Your task to perform on an android device: Add dell alienware to the cart on target Image 0: 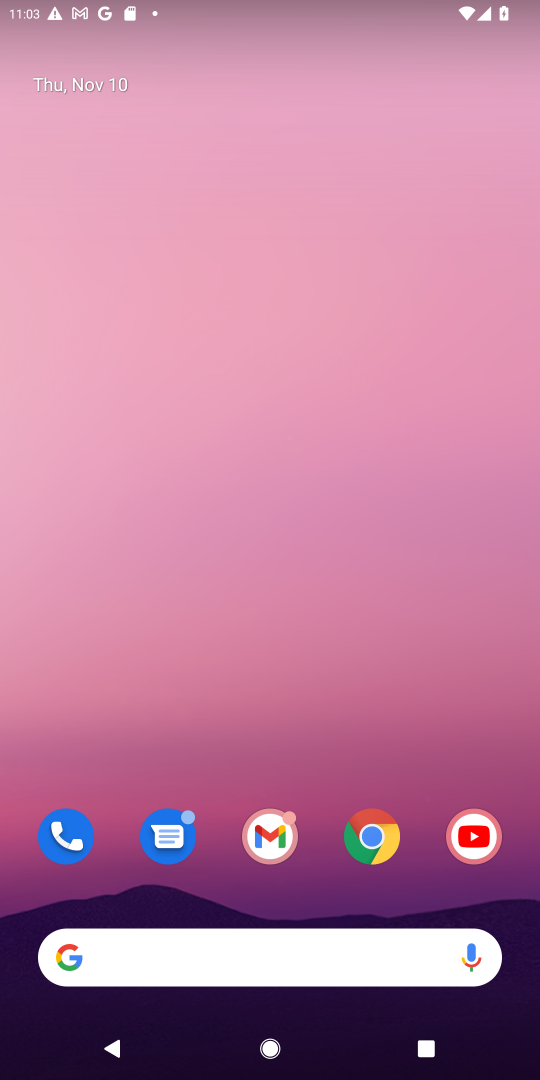
Step 0: click (254, 953)
Your task to perform on an android device: Add dell alienware to the cart on target Image 1: 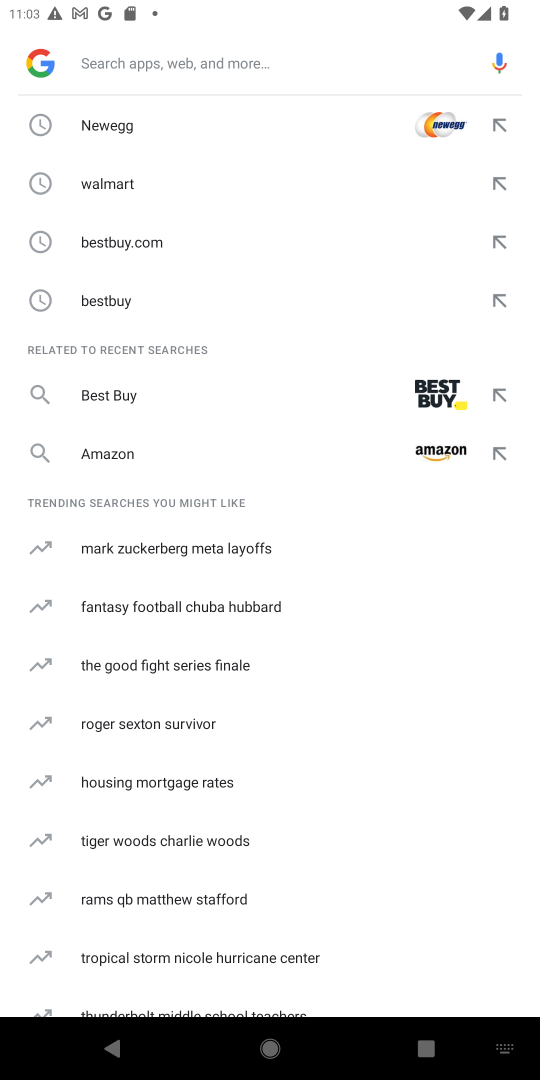
Step 1: type "target"
Your task to perform on an android device: Add dell alienware to the cart on target Image 2: 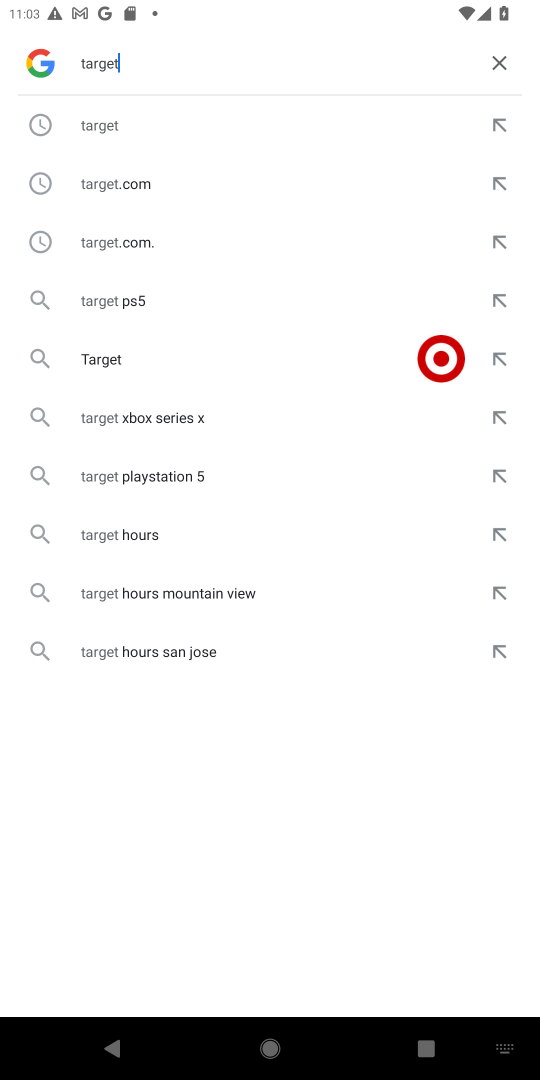
Step 2: click (103, 122)
Your task to perform on an android device: Add dell alienware to the cart on target Image 3: 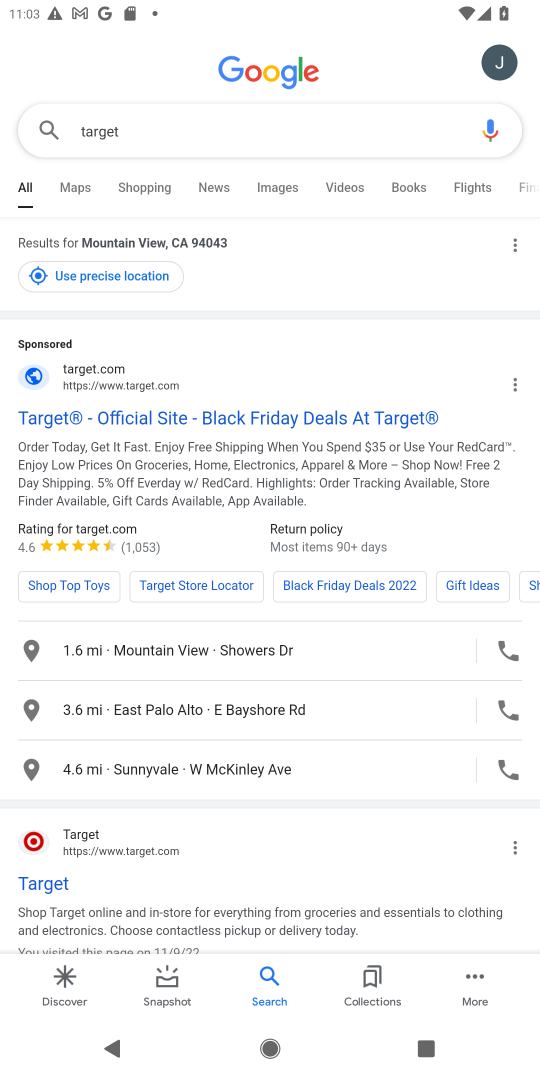
Step 3: click (81, 373)
Your task to perform on an android device: Add dell alienware to the cart on target Image 4: 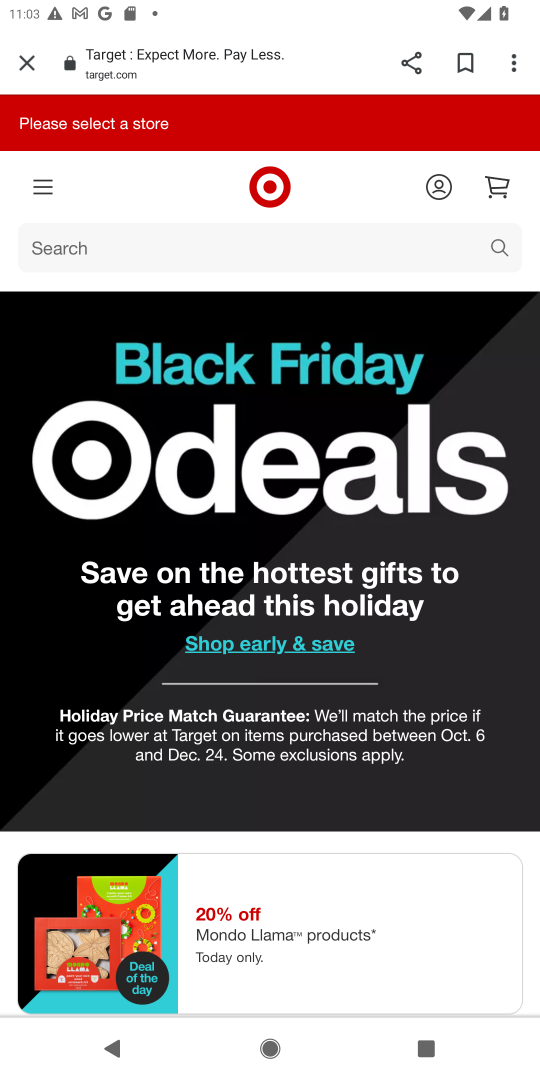
Step 4: click (178, 243)
Your task to perform on an android device: Add dell alienware to the cart on target Image 5: 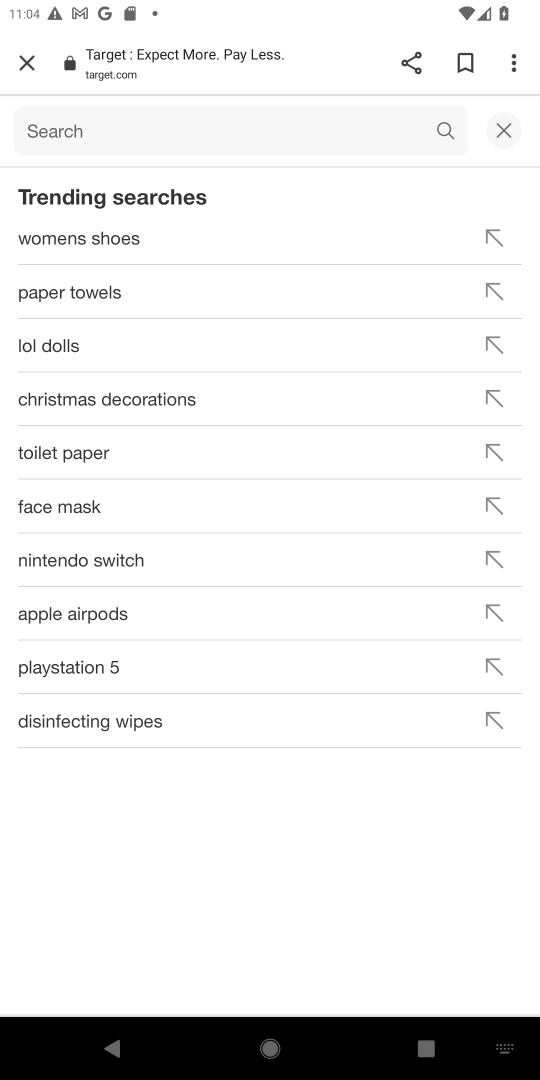
Step 5: type "dell alienware "
Your task to perform on an android device: Add dell alienware to the cart on target Image 6: 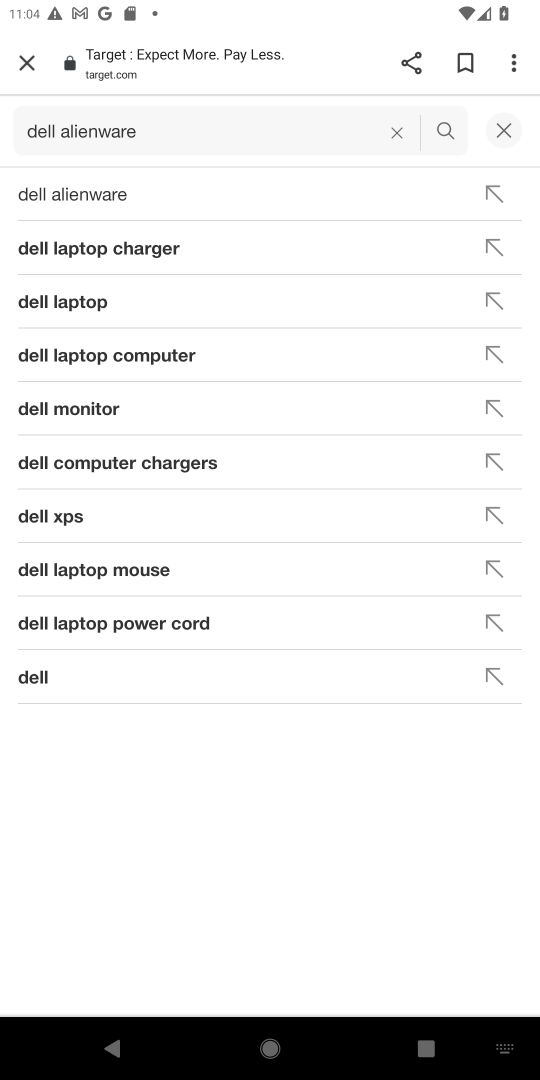
Step 6: click (93, 186)
Your task to perform on an android device: Add dell alienware to the cart on target Image 7: 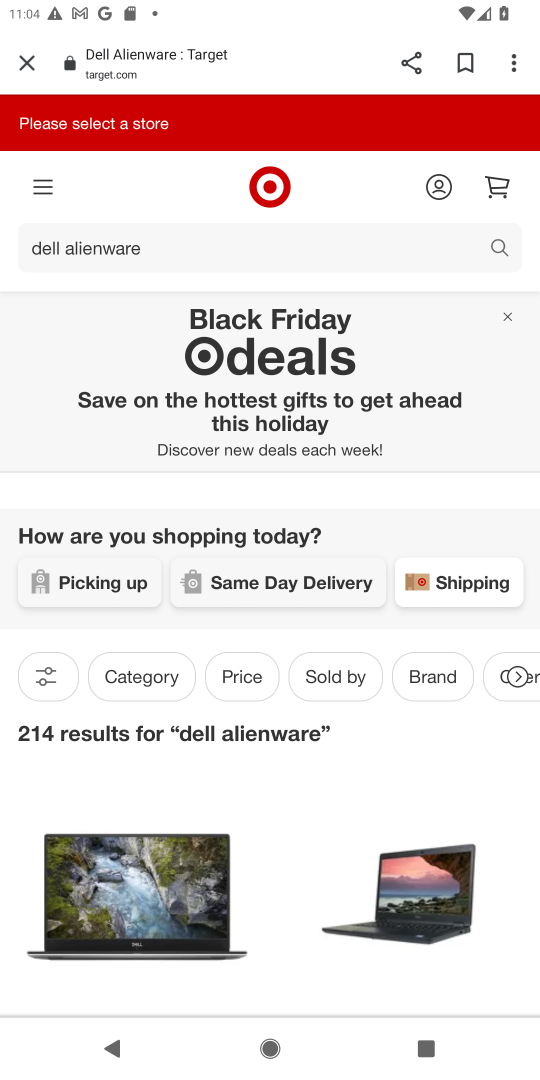
Step 7: drag from (257, 867) to (246, 732)
Your task to perform on an android device: Add dell alienware to the cart on target Image 8: 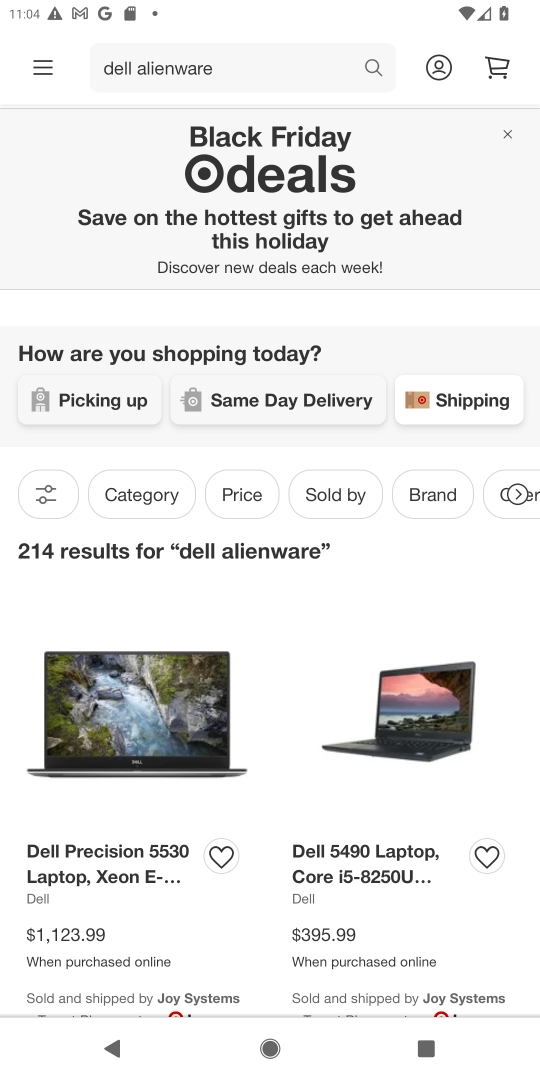
Step 8: drag from (178, 778) to (177, 592)
Your task to perform on an android device: Add dell alienware to the cart on target Image 9: 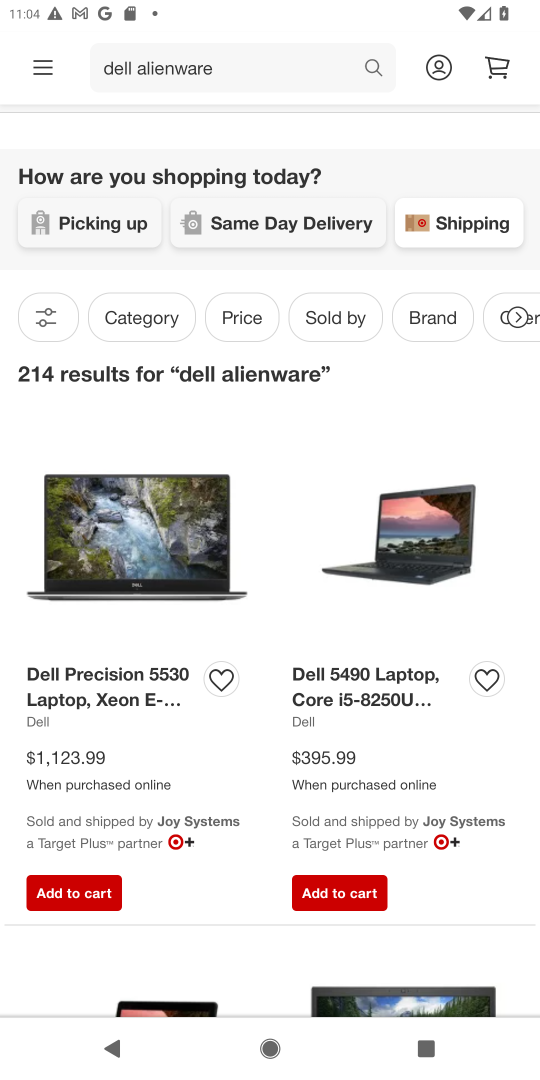
Step 9: click (61, 902)
Your task to perform on an android device: Add dell alienware to the cart on target Image 10: 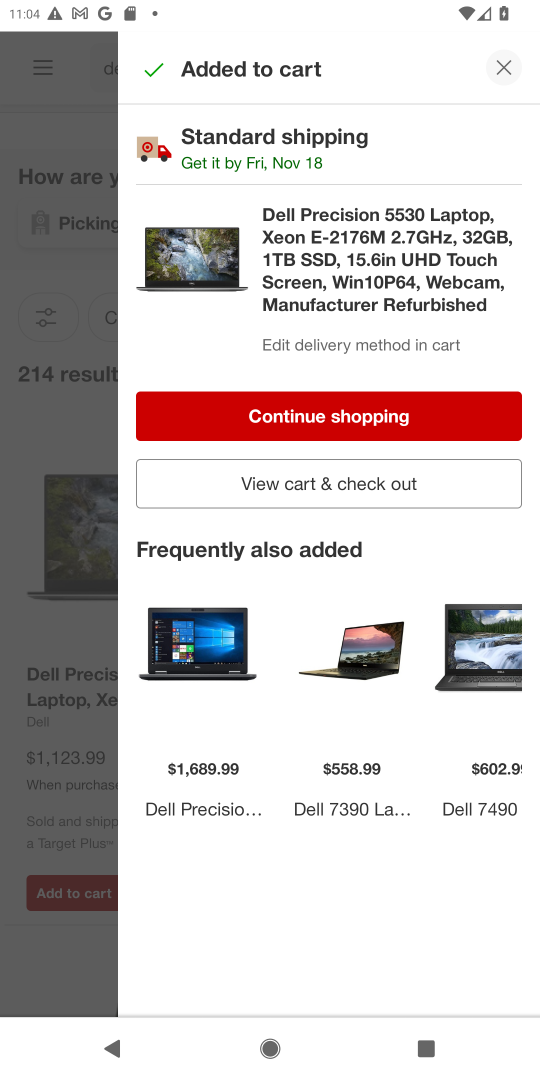
Step 10: click (500, 62)
Your task to perform on an android device: Add dell alienware to the cart on target Image 11: 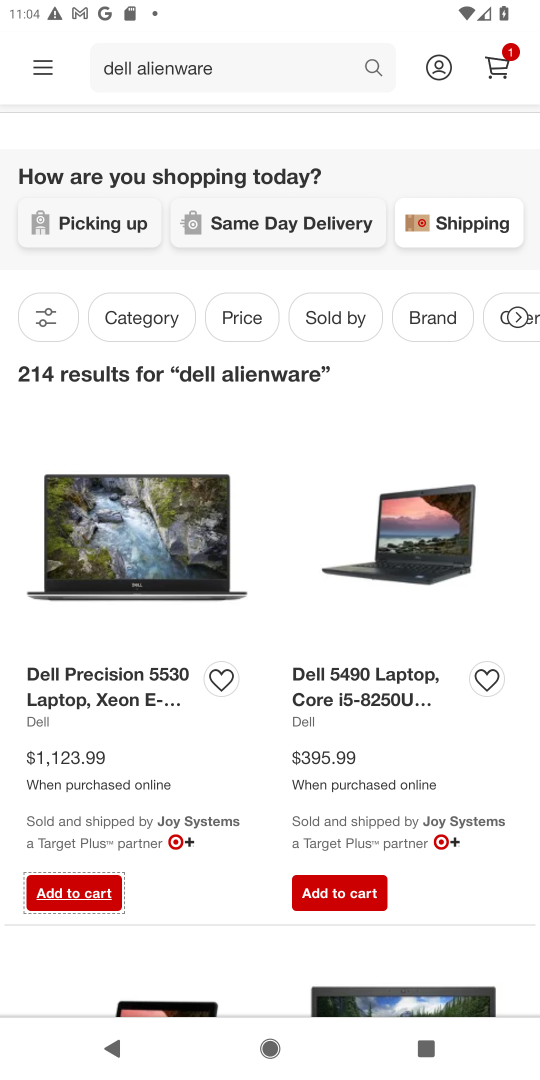
Step 11: task complete